Your task to perform on an android device: star an email in the gmail app Image 0: 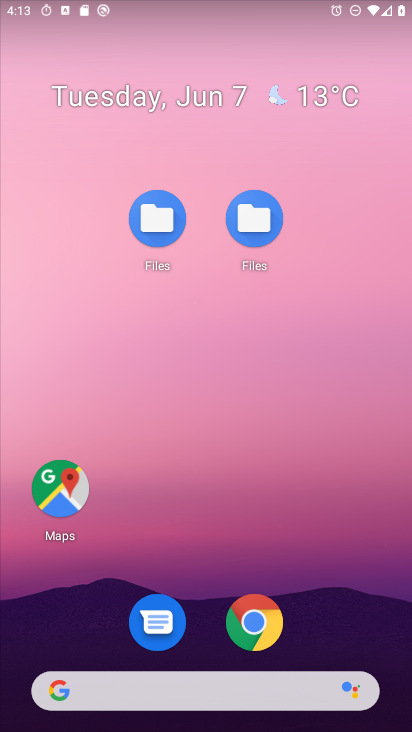
Step 0: drag from (333, 615) to (346, 204)
Your task to perform on an android device: star an email in the gmail app Image 1: 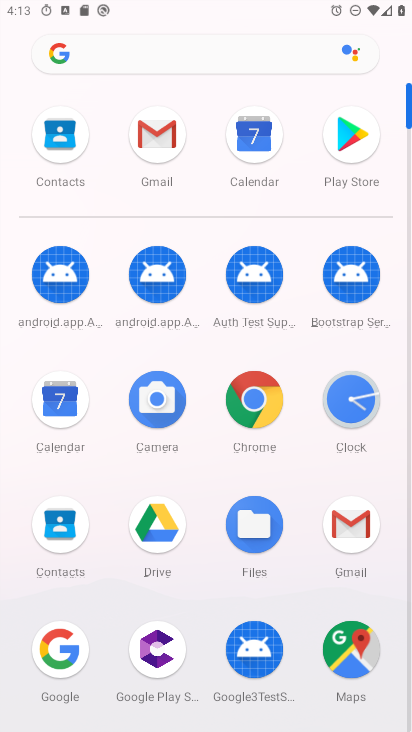
Step 1: click (150, 128)
Your task to perform on an android device: star an email in the gmail app Image 2: 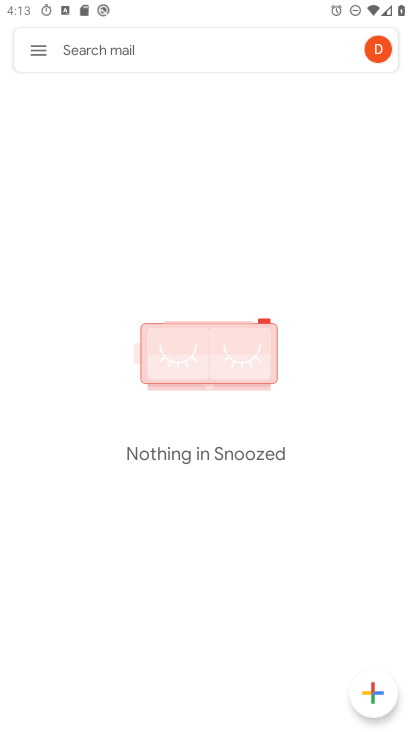
Step 2: click (32, 51)
Your task to perform on an android device: star an email in the gmail app Image 3: 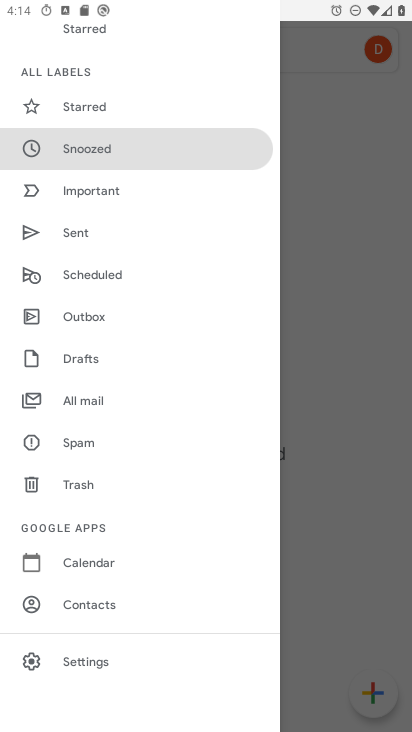
Step 3: click (202, 97)
Your task to perform on an android device: star an email in the gmail app Image 4: 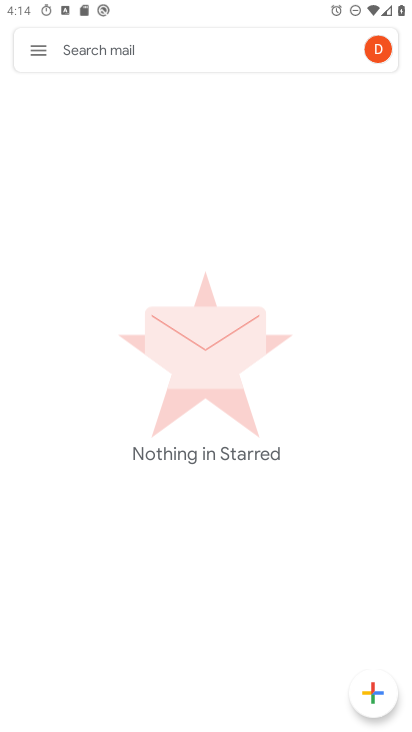
Step 4: task complete